Your task to perform on an android device: Open Yahoo.com Image 0: 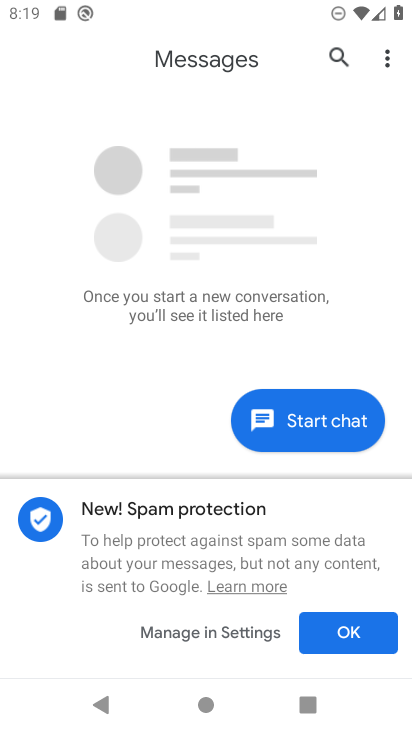
Step 0: press home button
Your task to perform on an android device: Open Yahoo.com Image 1: 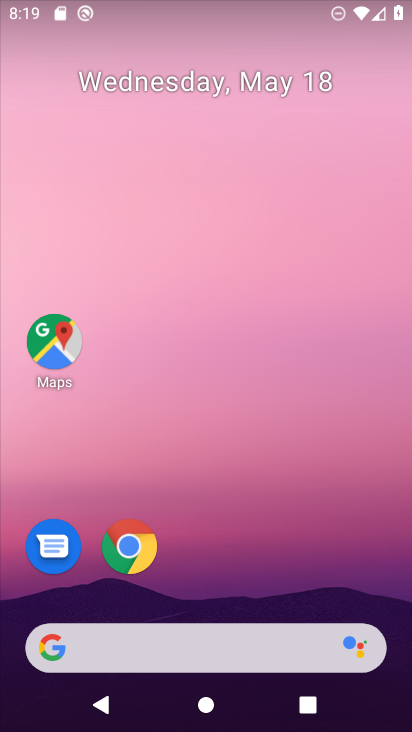
Step 1: drag from (275, 663) to (262, 185)
Your task to perform on an android device: Open Yahoo.com Image 2: 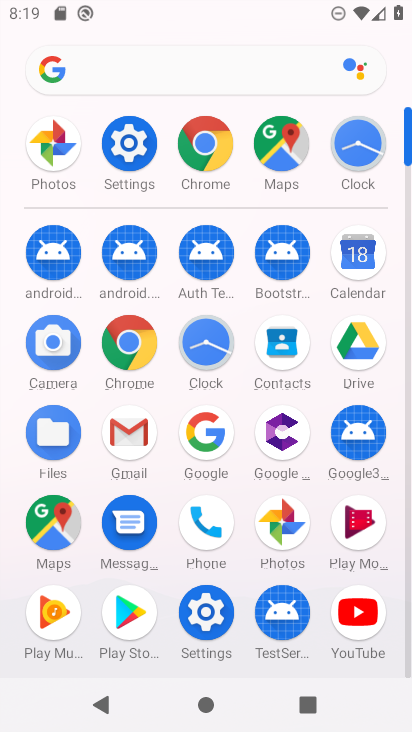
Step 2: click (202, 145)
Your task to perform on an android device: Open Yahoo.com Image 3: 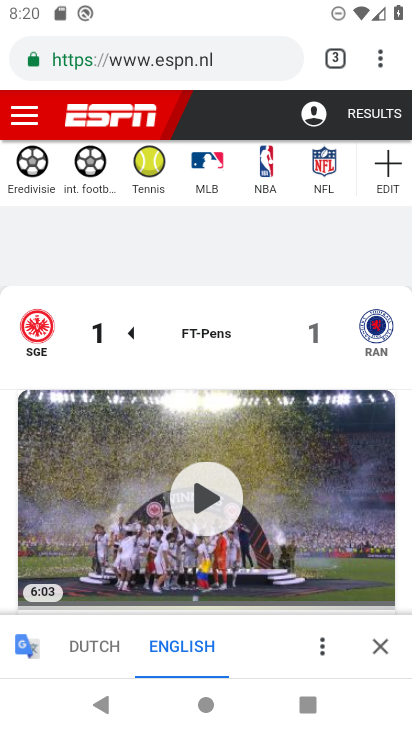
Step 3: click (334, 64)
Your task to perform on an android device: Open Yahoo.com Image 4: 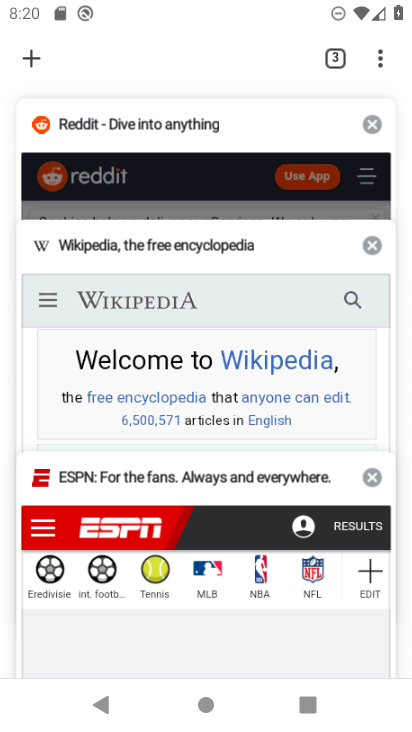
Step 4: click (48, 59)
Your task to perform on an android device: Open Yahoo.com Image 5: 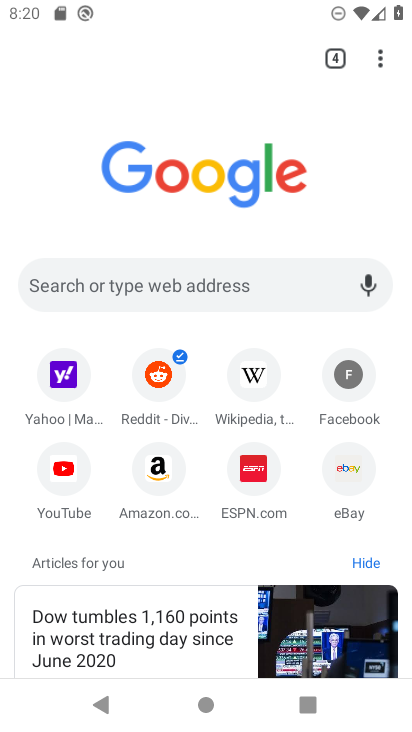
Step 5: click (71, 386)
Your task to perform on an android device: Open Yahoo.com Image 6: 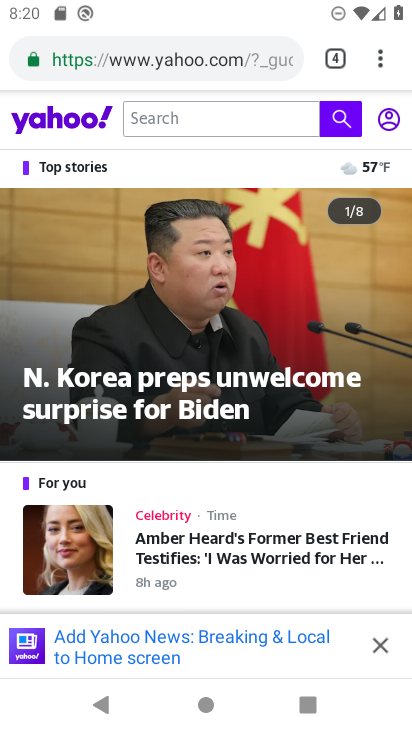
Step 6: task complete